Your task to perform on an android device: What's the weather going to be this weekend? Image 0: 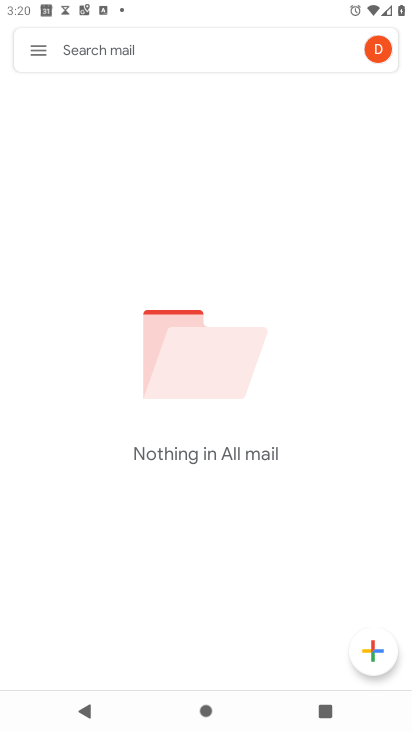
Step 0: press home button
Your task to perform on an android device: What's the weather going to be this weekend? Image 1: 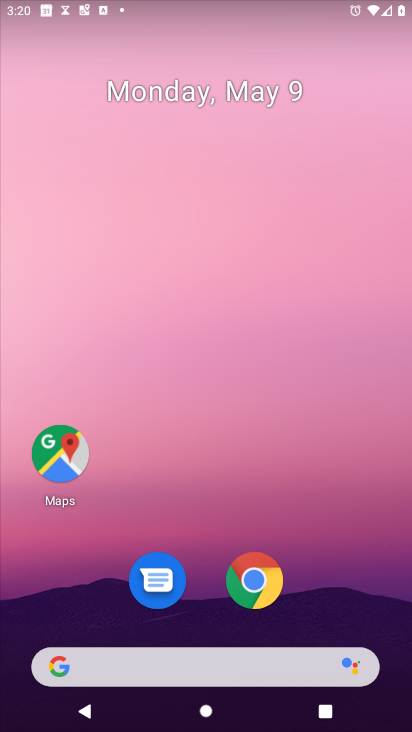
Step 1: drag from (322, 555) to (306, 38)
Your task to perform on an android device: What's the weather going to be this weekend? Image 2: 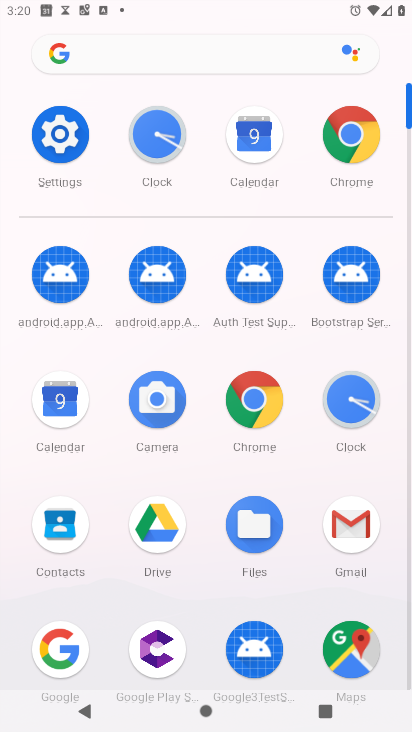
Step 2: click (60, 651)
Your task to perform on an android device: What's the weather going to be this weekend? Image 3: 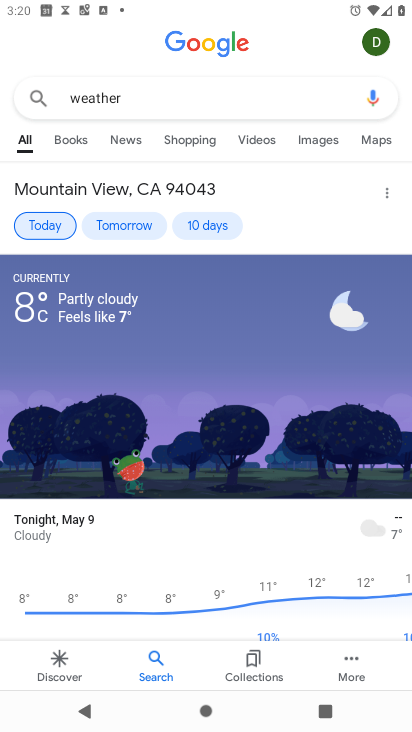
Step 3: click (207, 229)
Your task to perform on an android device: What's the weather going to be this weekend? Image 4: 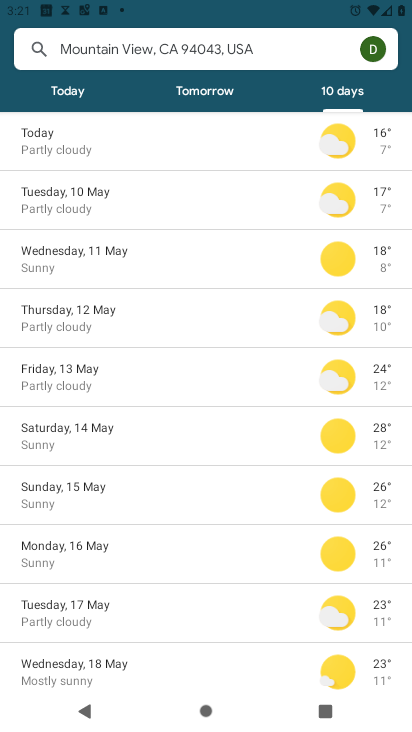
Step 4: task complete